Your task to perform on an android device: Open Youtube and go to the subscriptions tab Image 0: 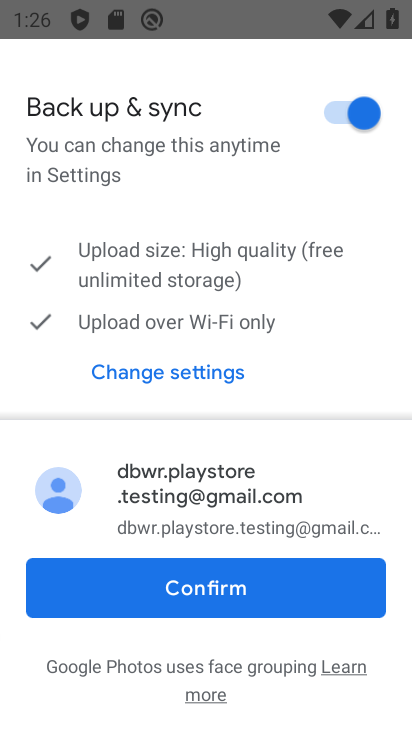
Step 0: press home button
Your task to perform on an android device: Open Youtube and go to the subscriptions tab Image 1: 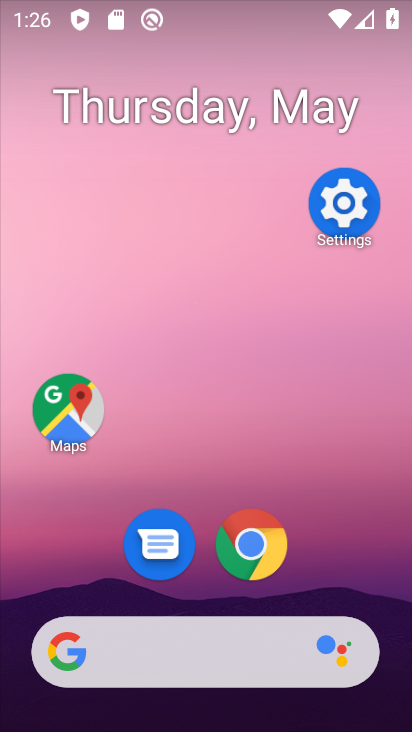
Step 1: drag from (320, 582) to (370, 213)
Your task to perform on an android device: Open Youtube and go to the subscriptions tab Image 2: 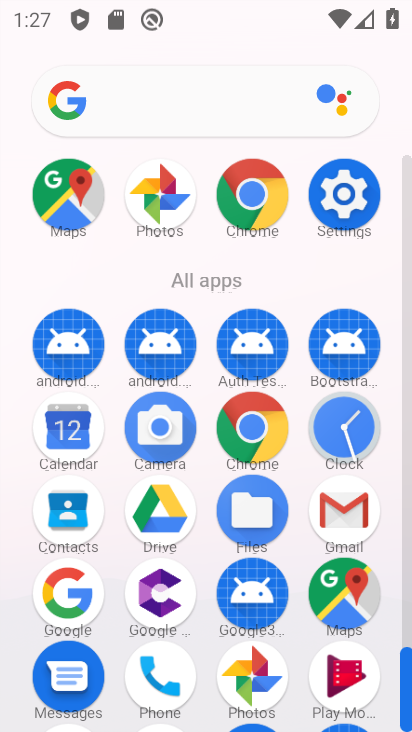
Step 2: drag from (292, 690) to (333, 180)
Your task to perform on an android device: Open Youtube and go to the subscriptions tab Image 3: 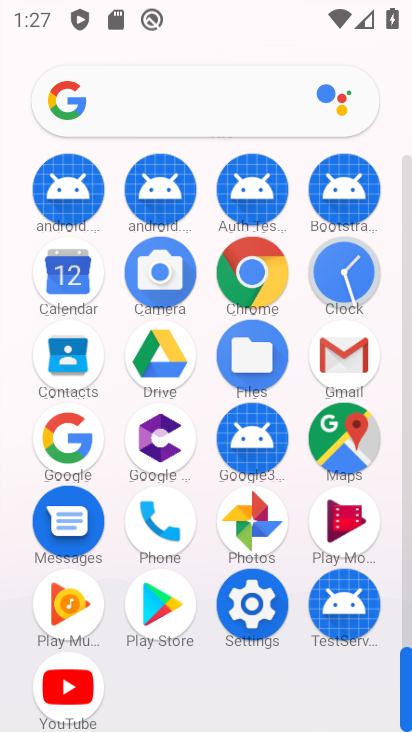
Step 3: click (73, 664)
Your task to perform on an android device: Open Youtube and go to the subscriptions tab Image 4: 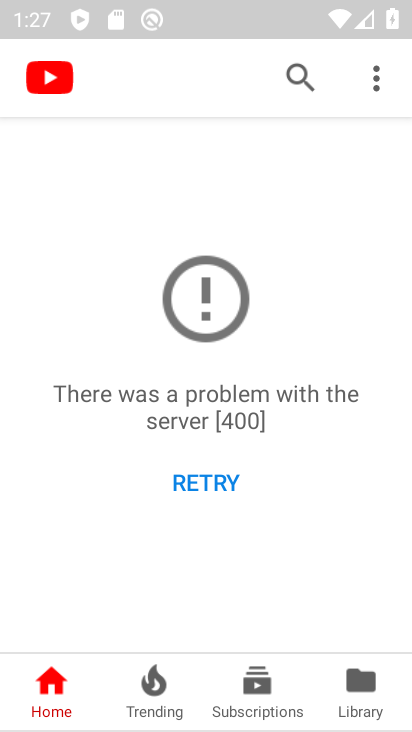
Step 4: click (258, 696)
Your task to perform on an android device: Open Youtube and go to the subscriptions tab Image 5: 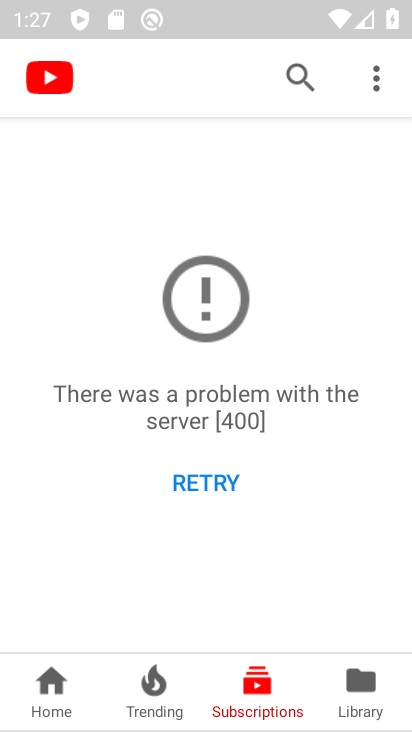
Step 5: task complete